Your task to perform on an android device: Open the calendar app, open the side menu, and click the "Day" option Image 0: 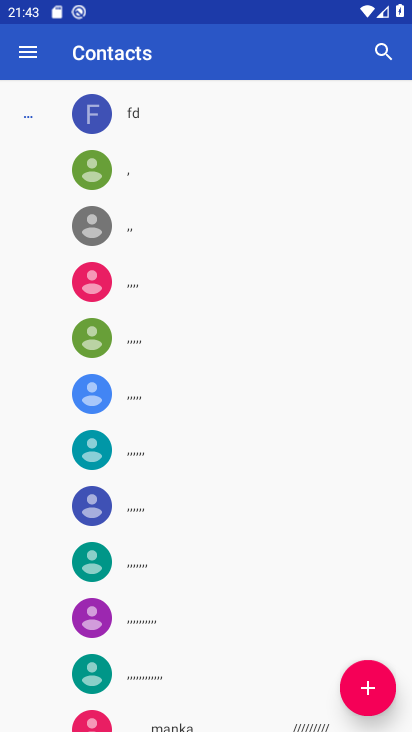
Step 0: press home button
Your task to perform on an android device: Open the calendar app, open the side menu, and click the "Day" option Image 1: 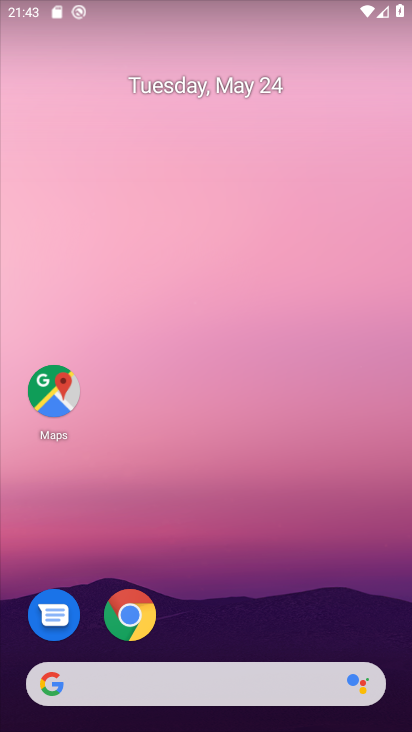
Step 1: drag from (226, 562) to (269, 211)
Your task to perform on an android device: Open the calendar app, open the side menu, and click the "Day" option Image 2: 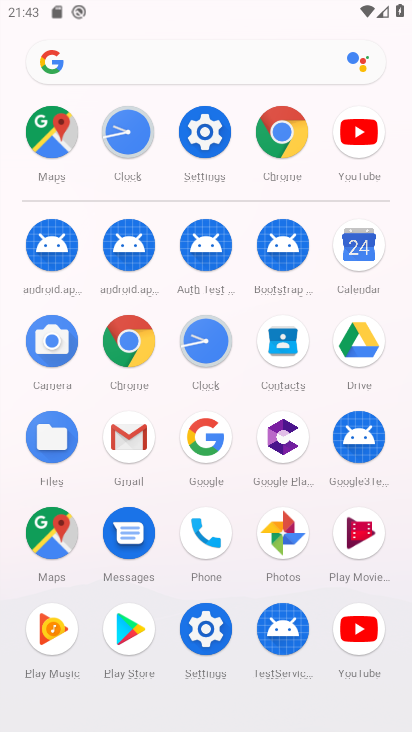
Step 2: click (364, 241)
Your task to perform on an android device: Open the calendar app, open the side menu, and click the "Day" option Image 3: 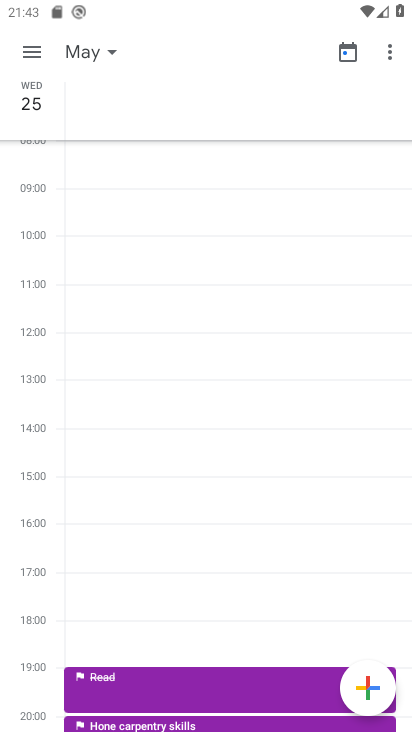
Step 3: click (40, 55)
Your task to perform on an android device: Open the calendar app, open the side menu, and click the "Day" option Image 4: 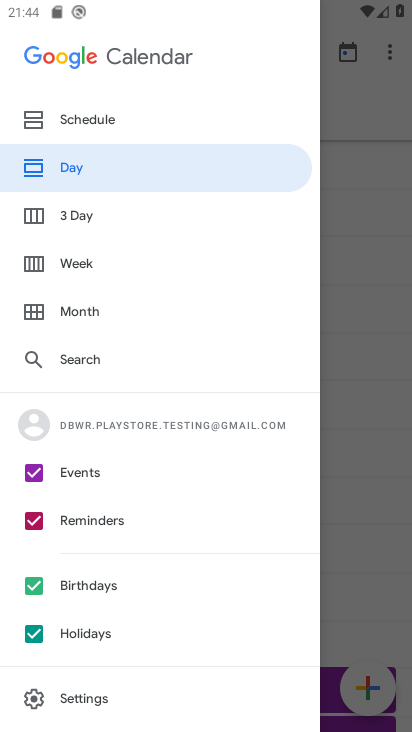
Step 4: task complete